Your task to perform on an android device: Open Chrome and go to settings Image 0: 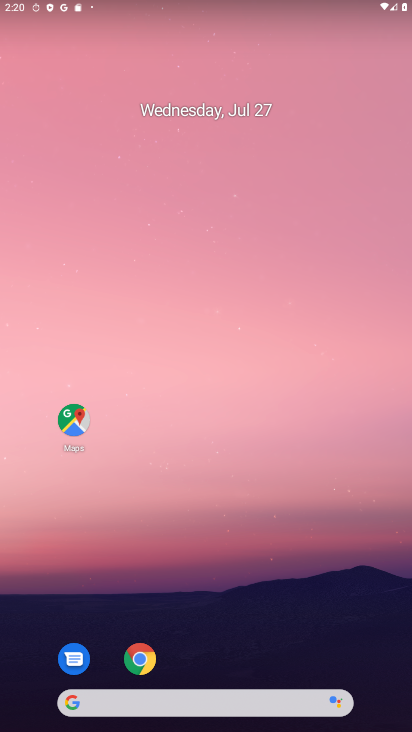
Step 0: click (144, 659)
Your task to perform on an android device: Open Chrome and go to settings Image 1: 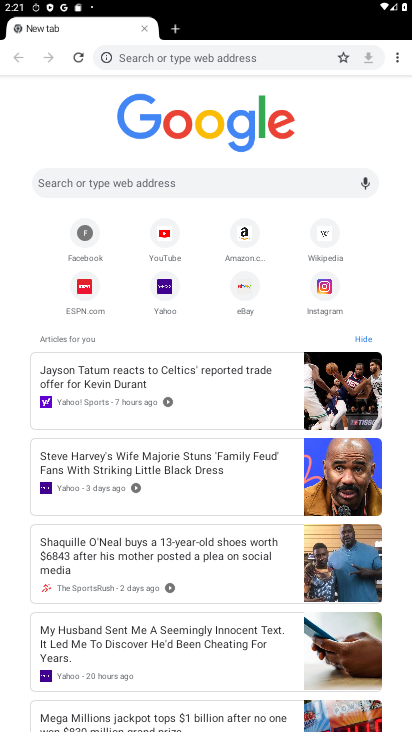
Step 1: click (402, 60)
Your task to perform on an android device: Open Chrome and go to settings Image 2: 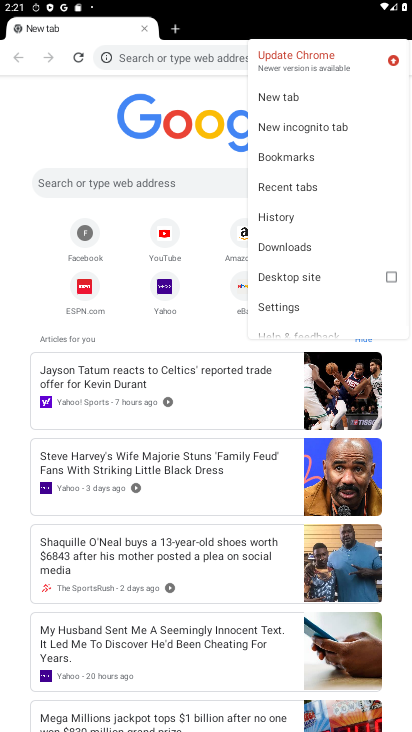
Step 2: click (314, 310)
Your task to perform on an android device: Open Chrome and go to settings Image 3: 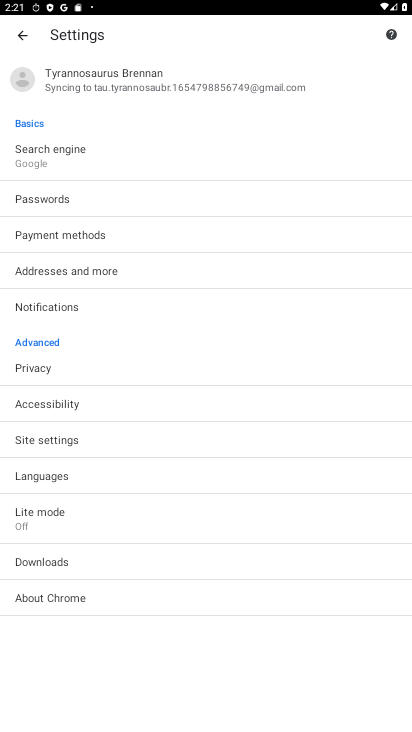
Step 3: task complete